Your task to perform on an android device: Set the phone to "Do not disturb". Image 0: 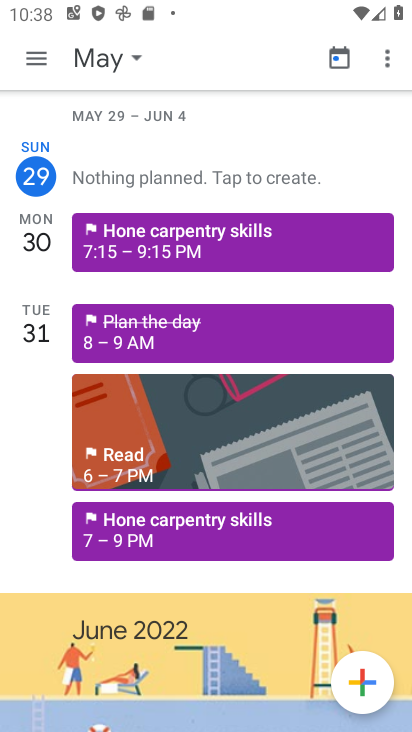
Step 0: press home button
Your task to perform on an android device: Set the phone to "Do not disturb". Image 1: 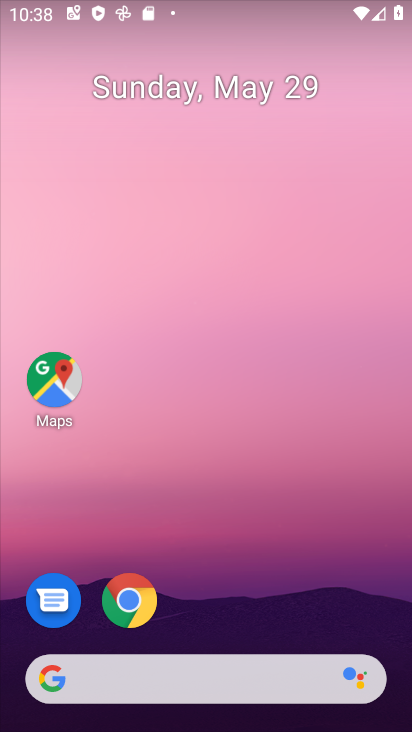
Step 1: drag from (219, 726) to (225, 177)
Your task to perform on an android device: Set the phone to "Do not disturb". Image 2: 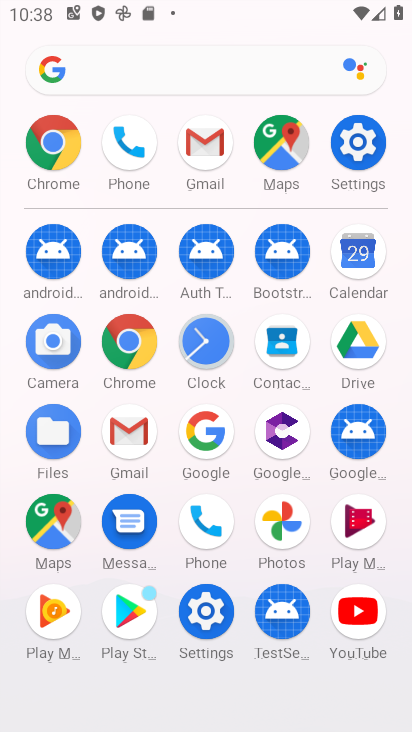
Step 2: click (361, 141)
Your task to perform on an android device: Set the phone to "Do not disturb". Image 3: 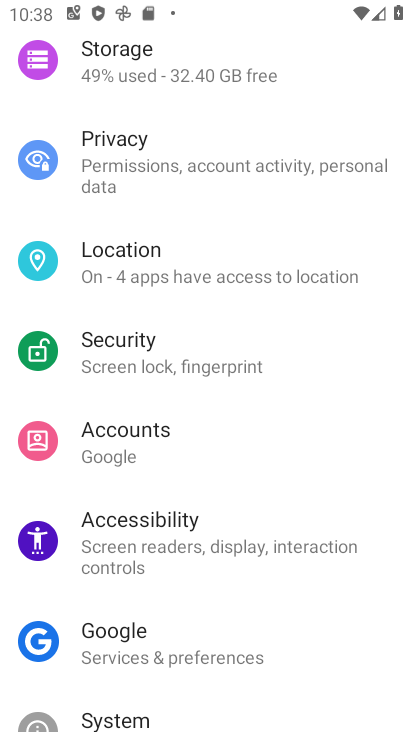
Step 3: drag from (232, 108) to (221, 497)
Your task to perform on an android device: Set the phone to "Do not disturb". Image 4: 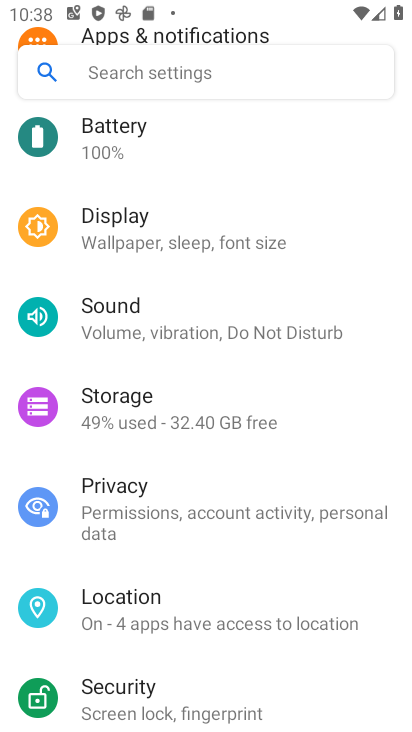
Step 4: drag from (154, 222) to (151, 479)
Your task to perform on an android device: Set the phone to "Do not disturb". Image 5: 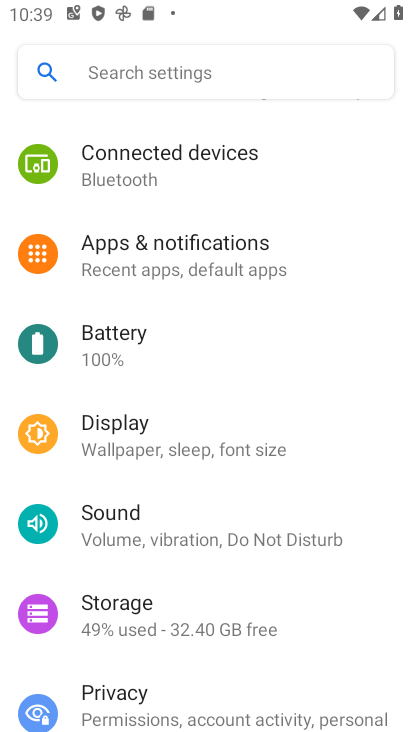
Step 5: click (207, 532)
Your task to perform on an android device: Set the phone to "Do not disturb". Image 6: 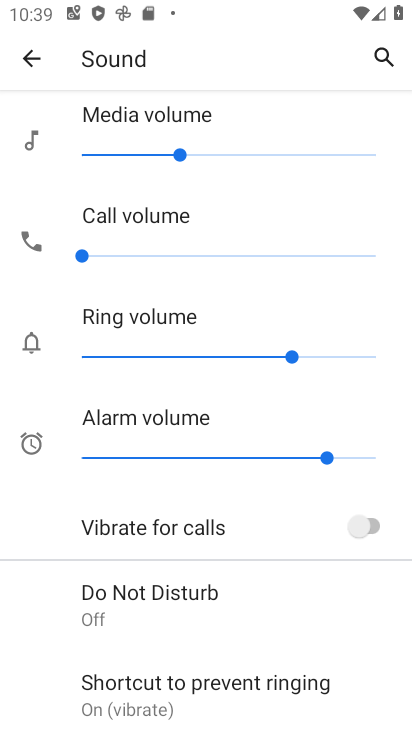
Step 6: click (136, 590)
Your task to perform on an android device: Set the phone to "Do not disturb". Image 7: 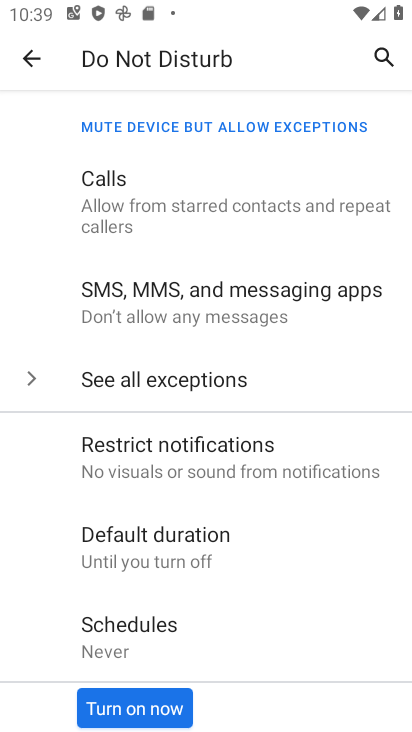
Step 7: click (141, 710)
Your task to perform on an android device: Set the phone to "Do not disturb". Image 8: 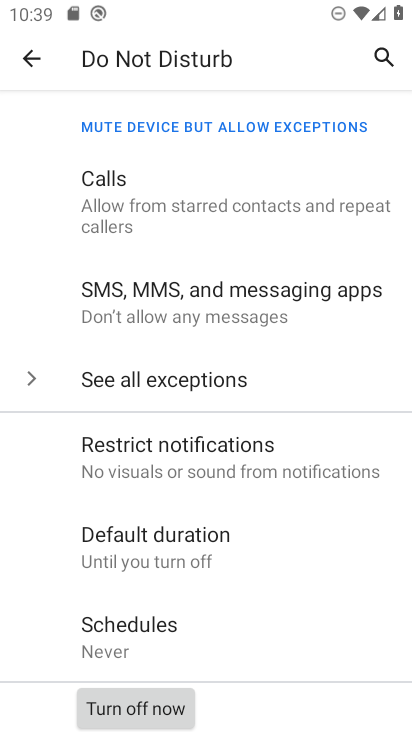
Step 8: task complete